Your task to perform on an android device: What's the weather going to be tomorrow? Image 0: 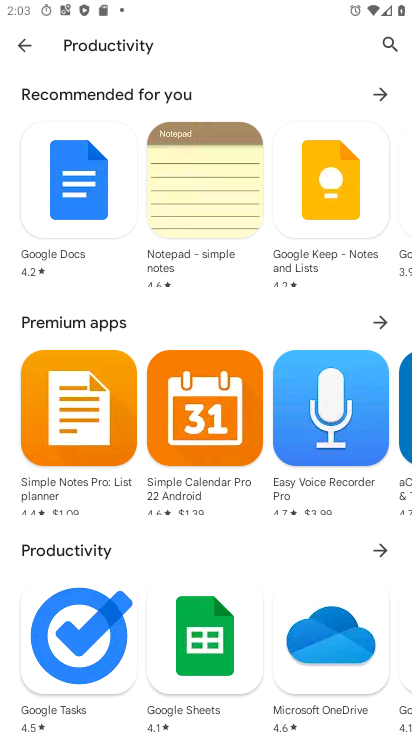
Step 0: press home button
Your task to perform on an android device: What's the weather going to be tomorrow? Image 1: 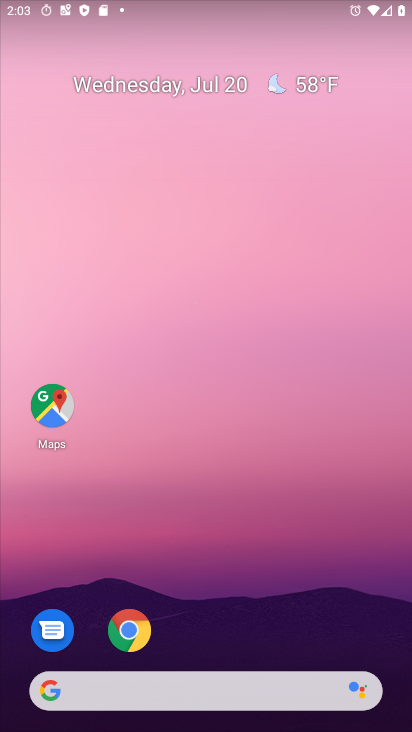
Step 1: click (137, 692)
Your task to perform on an android device: What's the weather going to be tomorrow? Image 2: 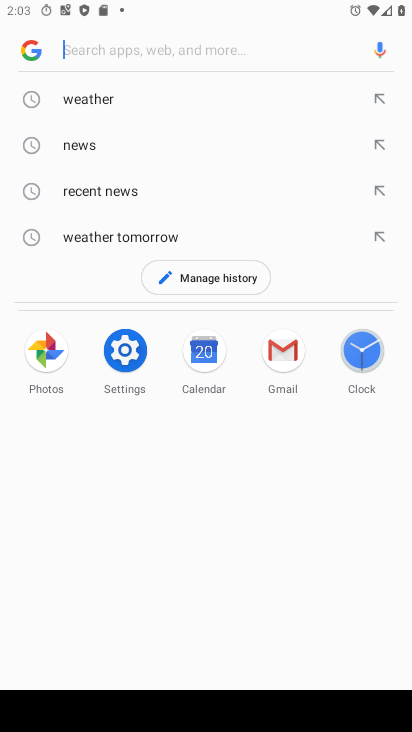
Step 2: click (99, 96)
Your task to perform on an android device: What's the weather going to be tomorrow? Image 3: 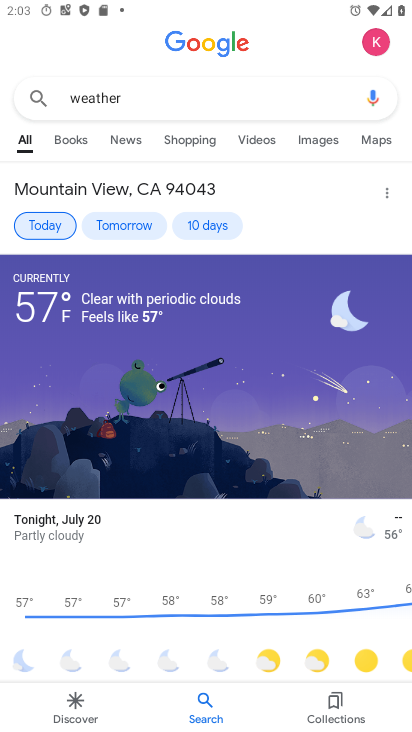
Step 3: click (131, 224)
Your task to perform on an android device: What's the weather going to be tomorrow? Image 4: 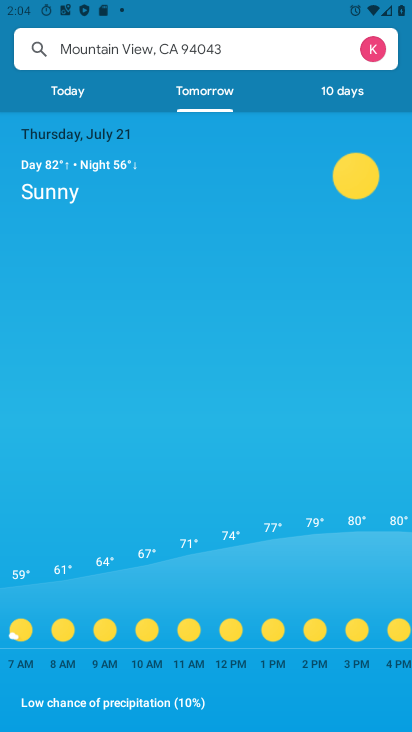
Step 4: task complete